Your task to perform on an android device: Clear all items from cart on target. Add macbook pro to the cart on target, then select checkout. Image 0: 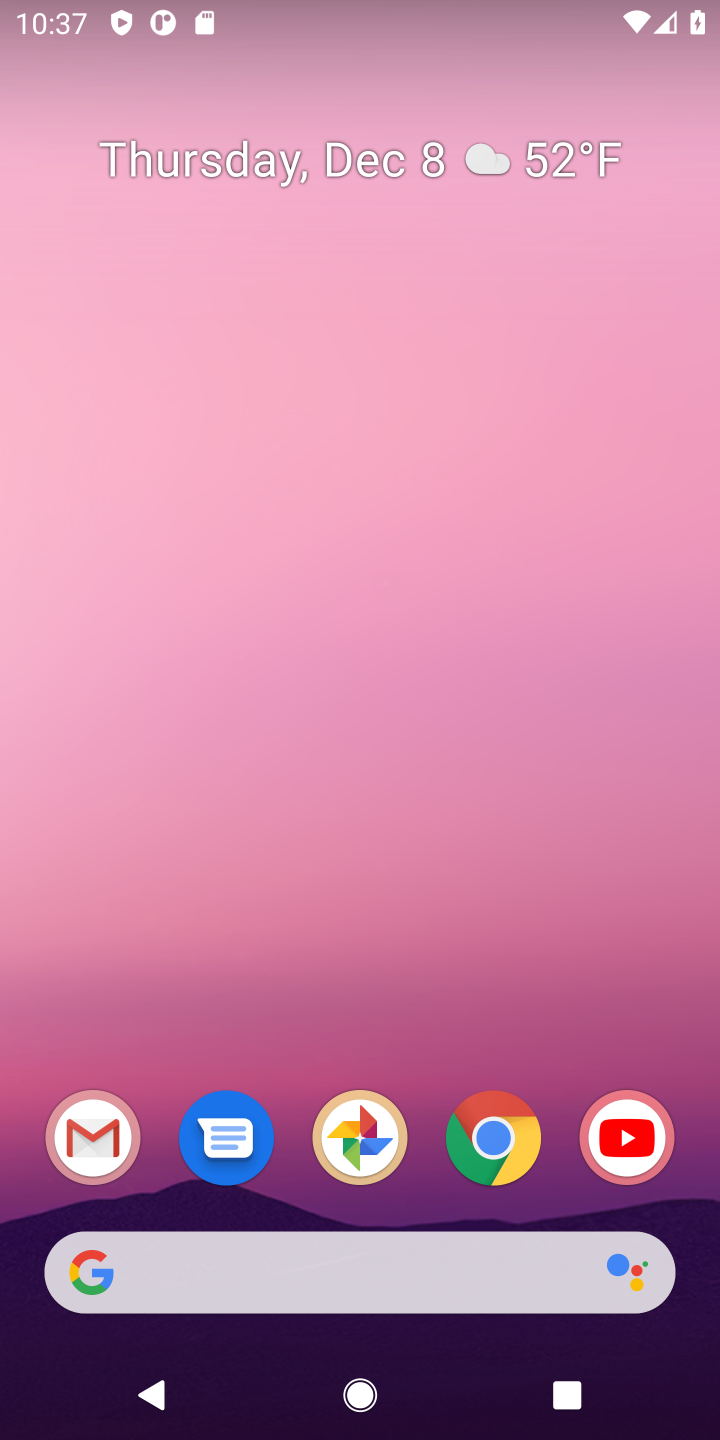
Step 0: click (497, 1144)
Your task to perform on an android device: Clear all items from cart on target. Add macbook pro to the cart on target, then select checkout. Image 1: 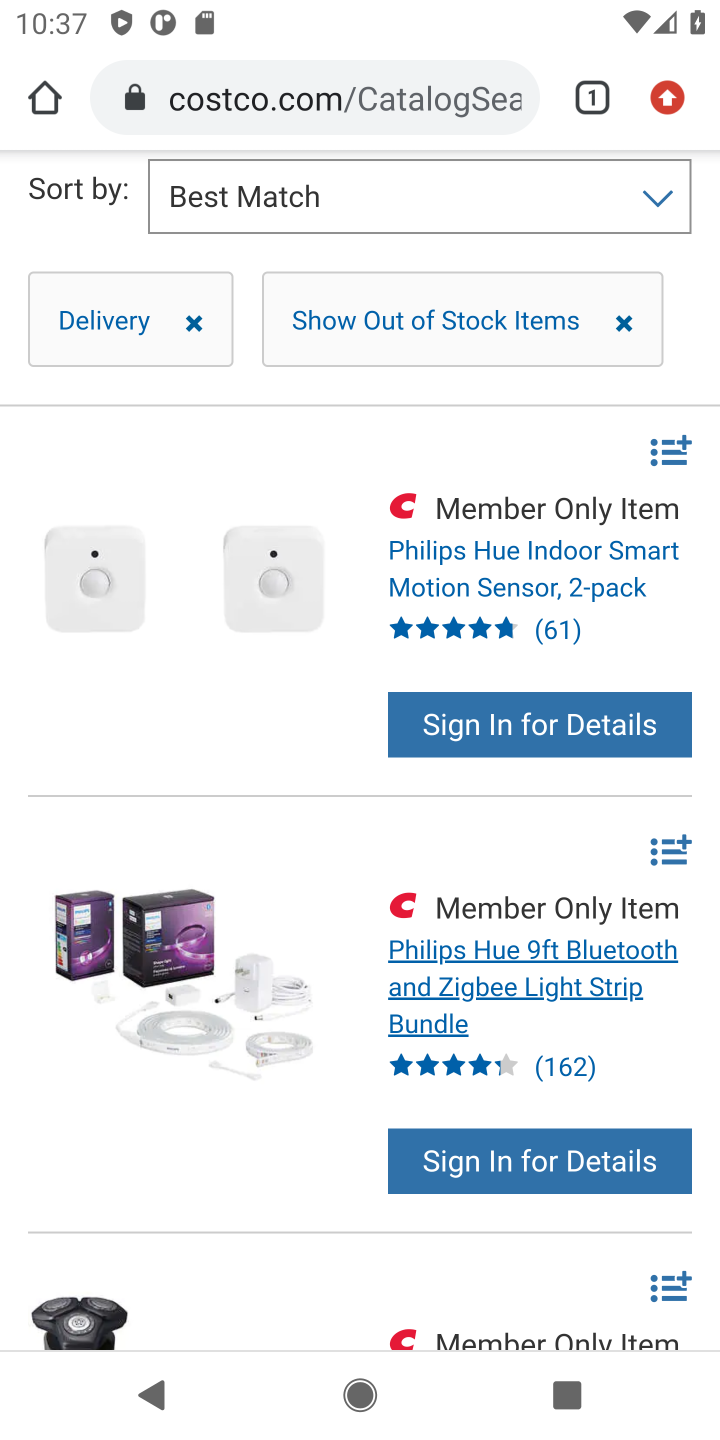
Step 1: click (403, 109)
Your task to perform on an android device: Clear all items from cart on target. Add macbook pro to the cart on target, then select checkout. Image 2: 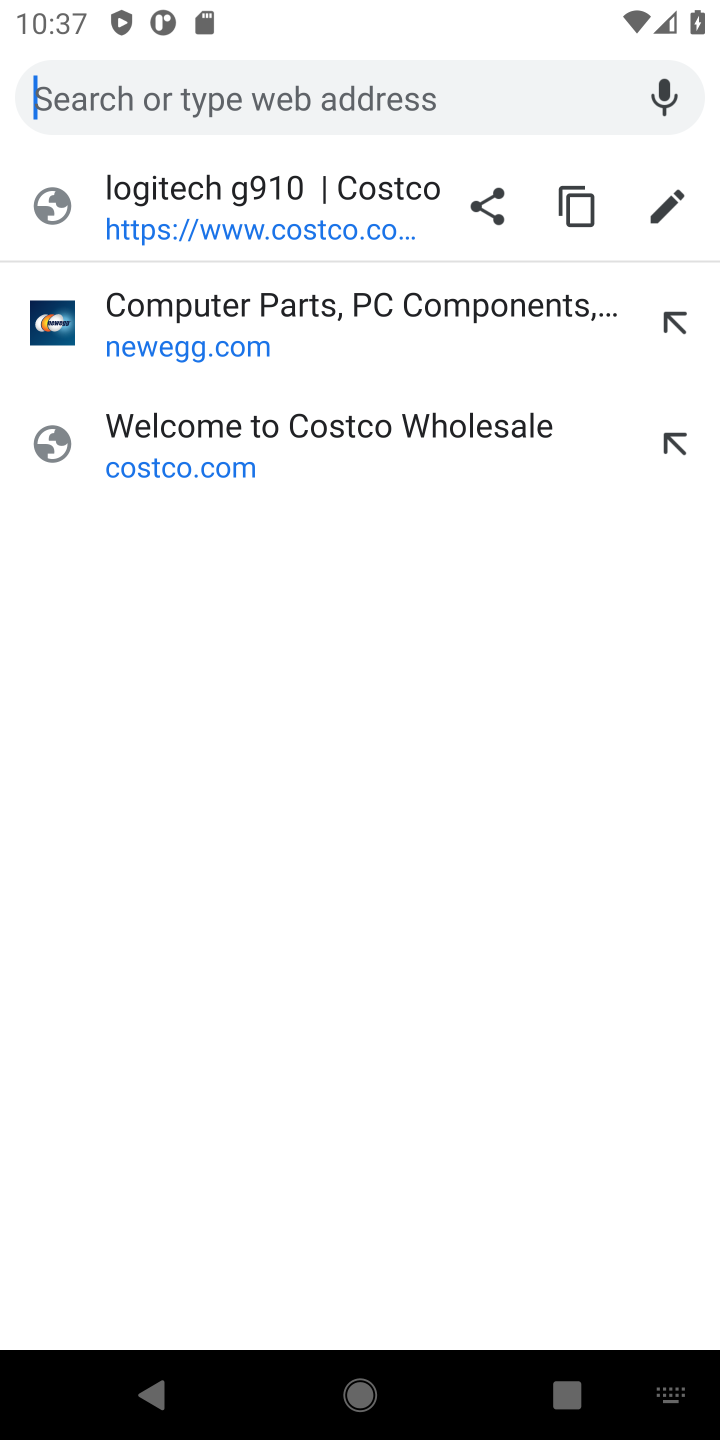
Step 2: type "target"
Your task to perform on an android device: Clear all items from cart on target. Add macbook pro to the cart on target, then select checkout. Image 3: 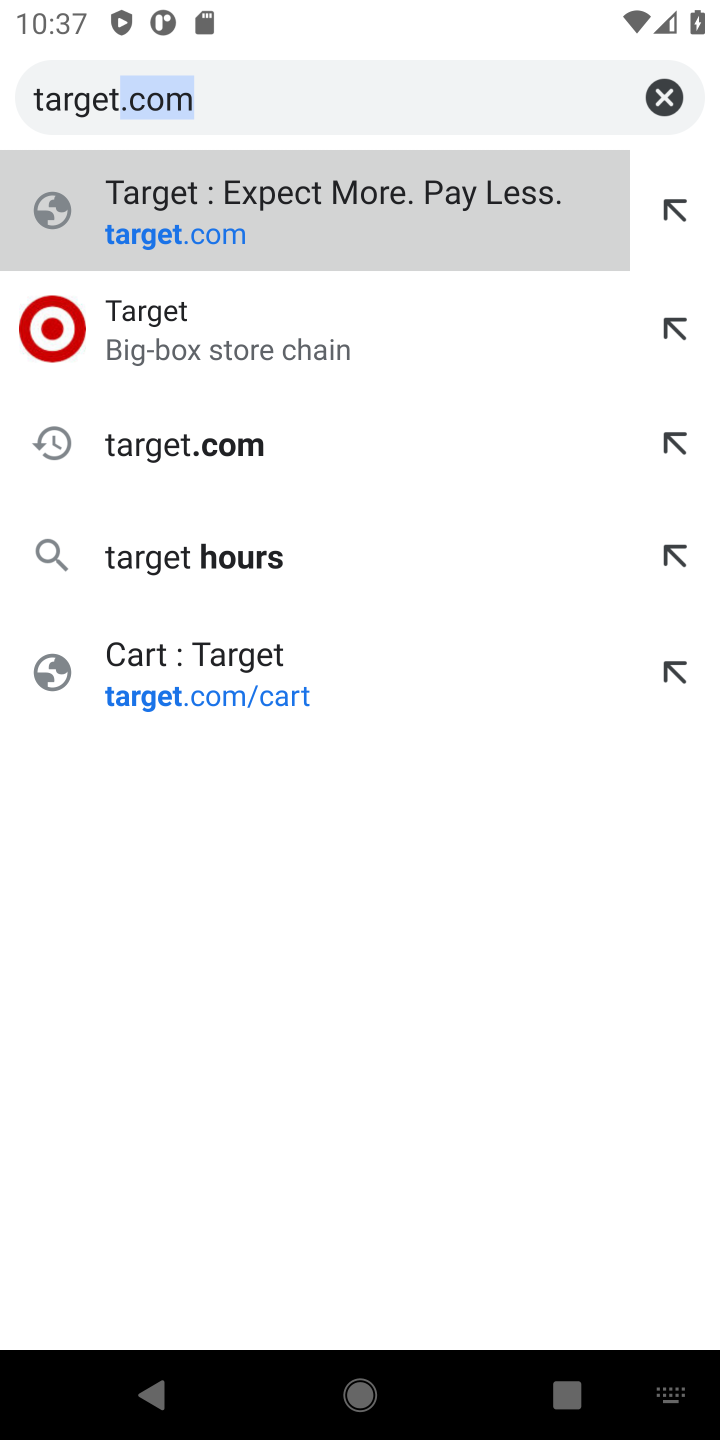
Step 3: click (392, 82)
Your task to perform on an android device: Clear all items from cart on target. Add macbook pro to the cart on target, then select checkout. Image 4: 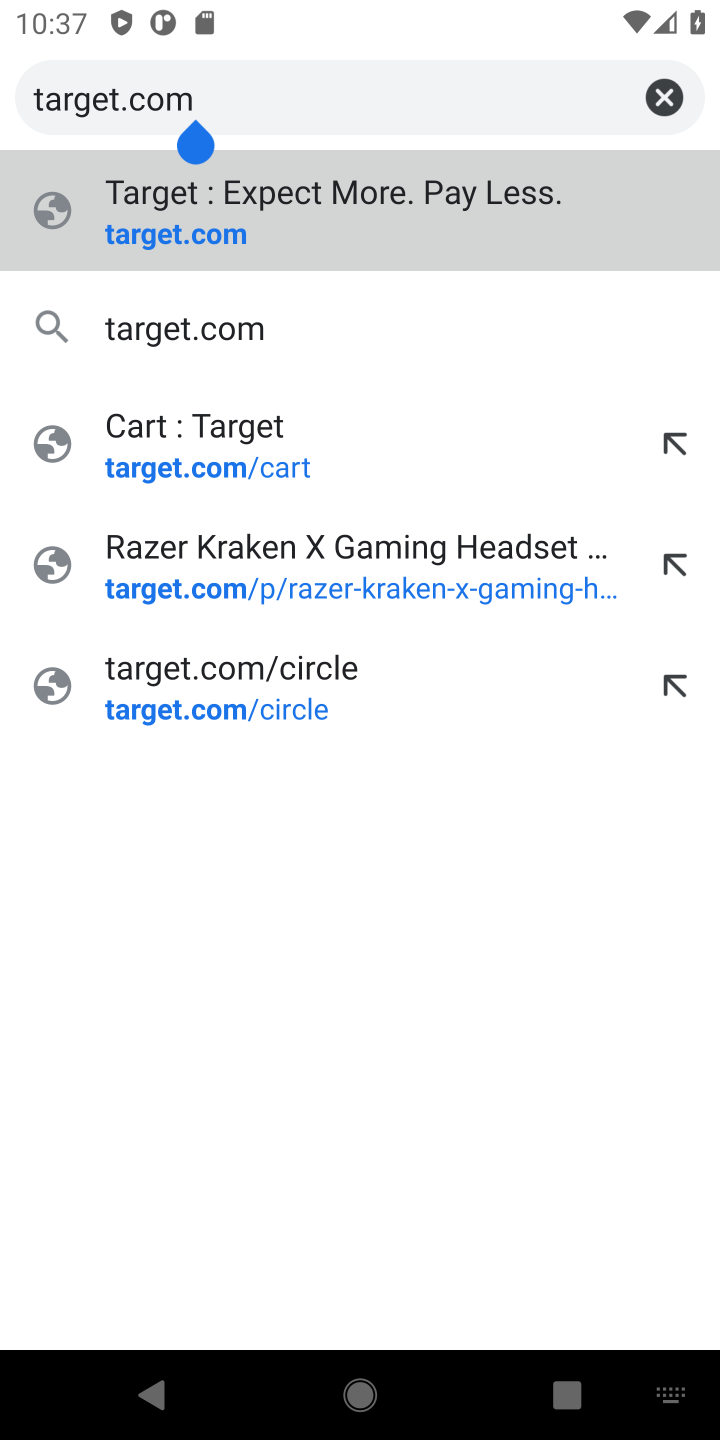
Step 4: click (234, 322)
Your task to perform on an android device: Clear all items from cart on target. Add macbook pro to the cart on target, then select checkout. Image 5: 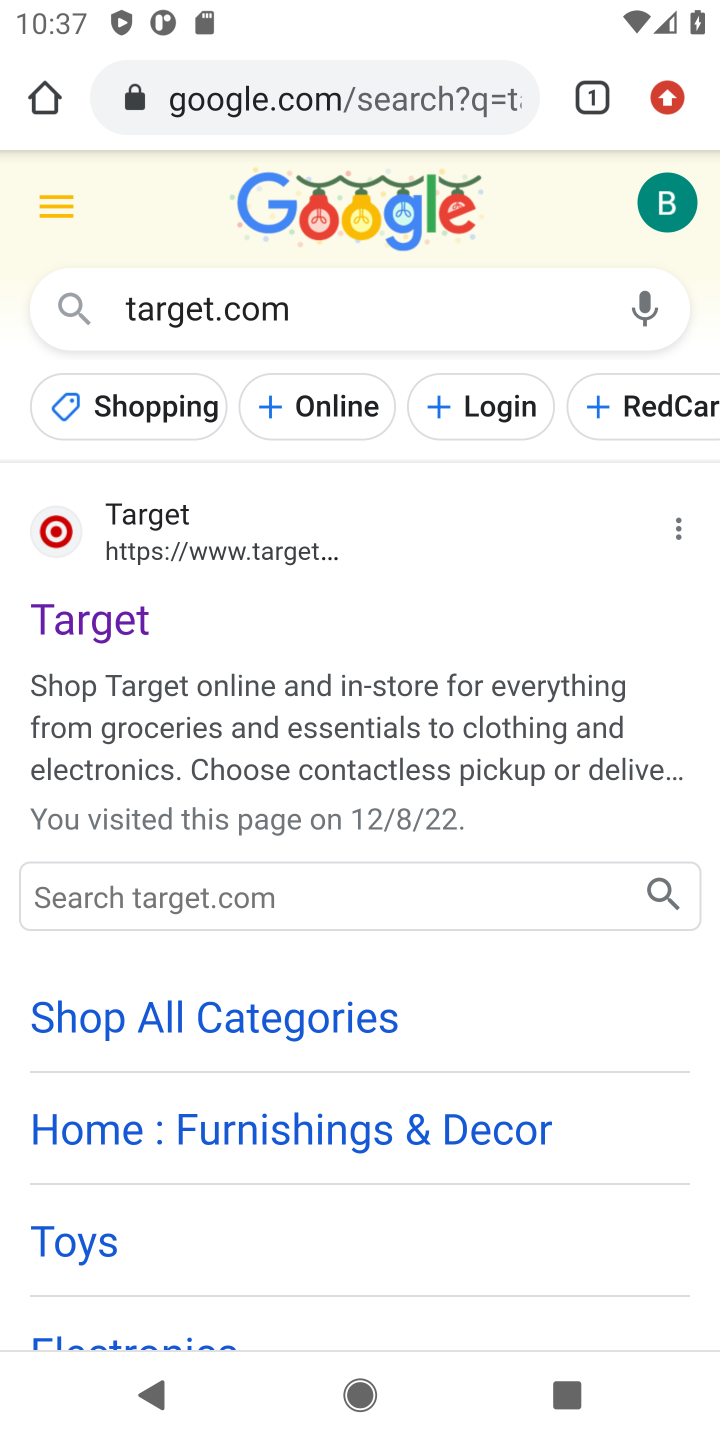
Step 5: click (224, 550)
Your task to perform on an android device: Clear all items from cart on target. Add macbook pro to the cart on target, then select checkout. Image 6: 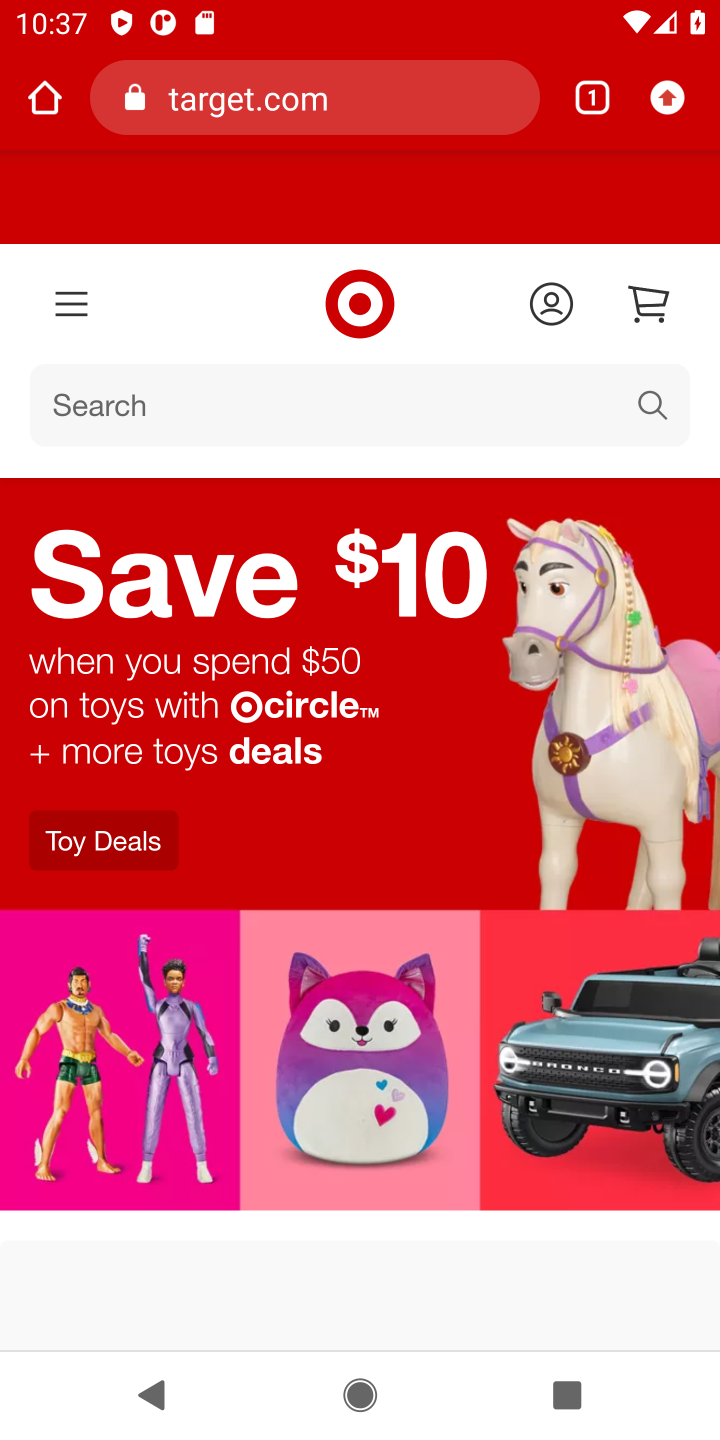
Step 6: click (656, 307)
Your task to perform on an android device: Clear all items from cart on target. Add macbook pro to the cart on target, then select checkout. Image 7: 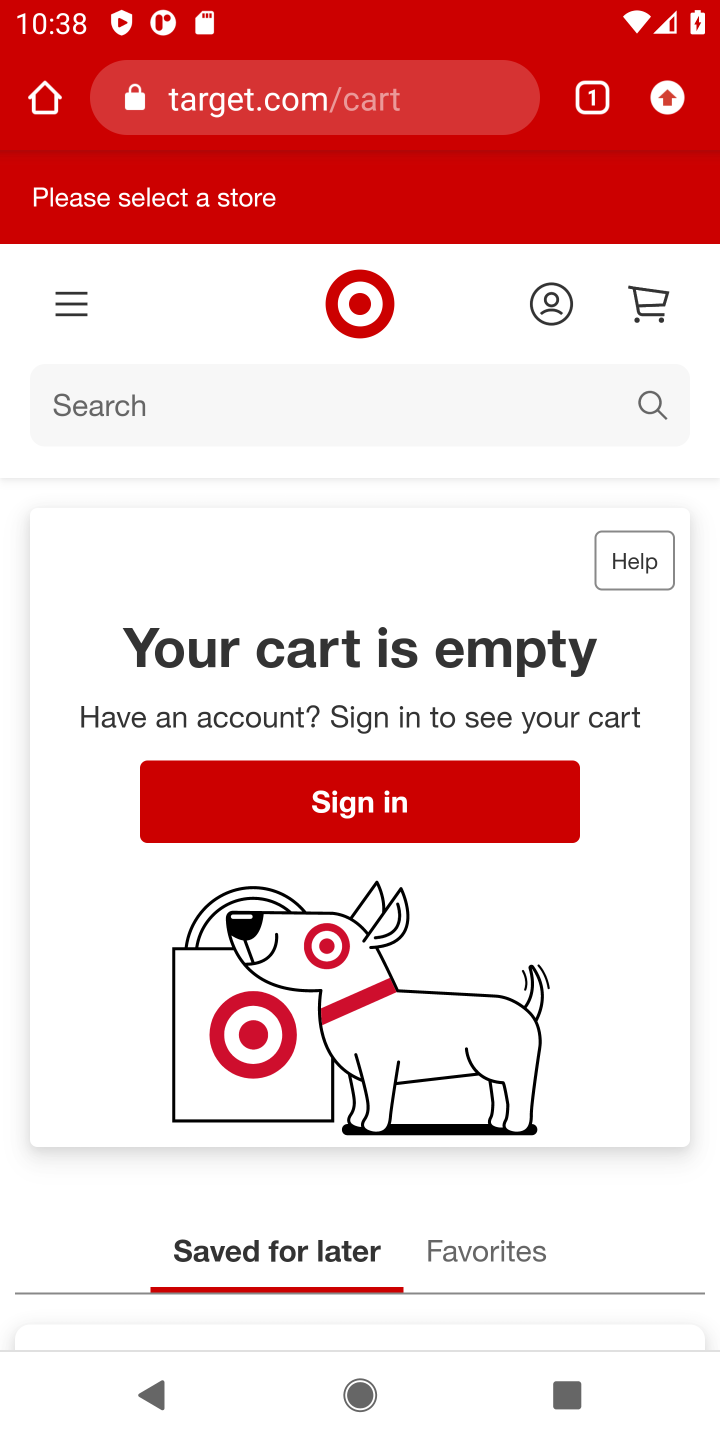
Step 7: click (418, 396)
Your task to perform on an android device: Clear all items from cart on target. Add macbook pro to the cart on target, then select checkout. Image 8: 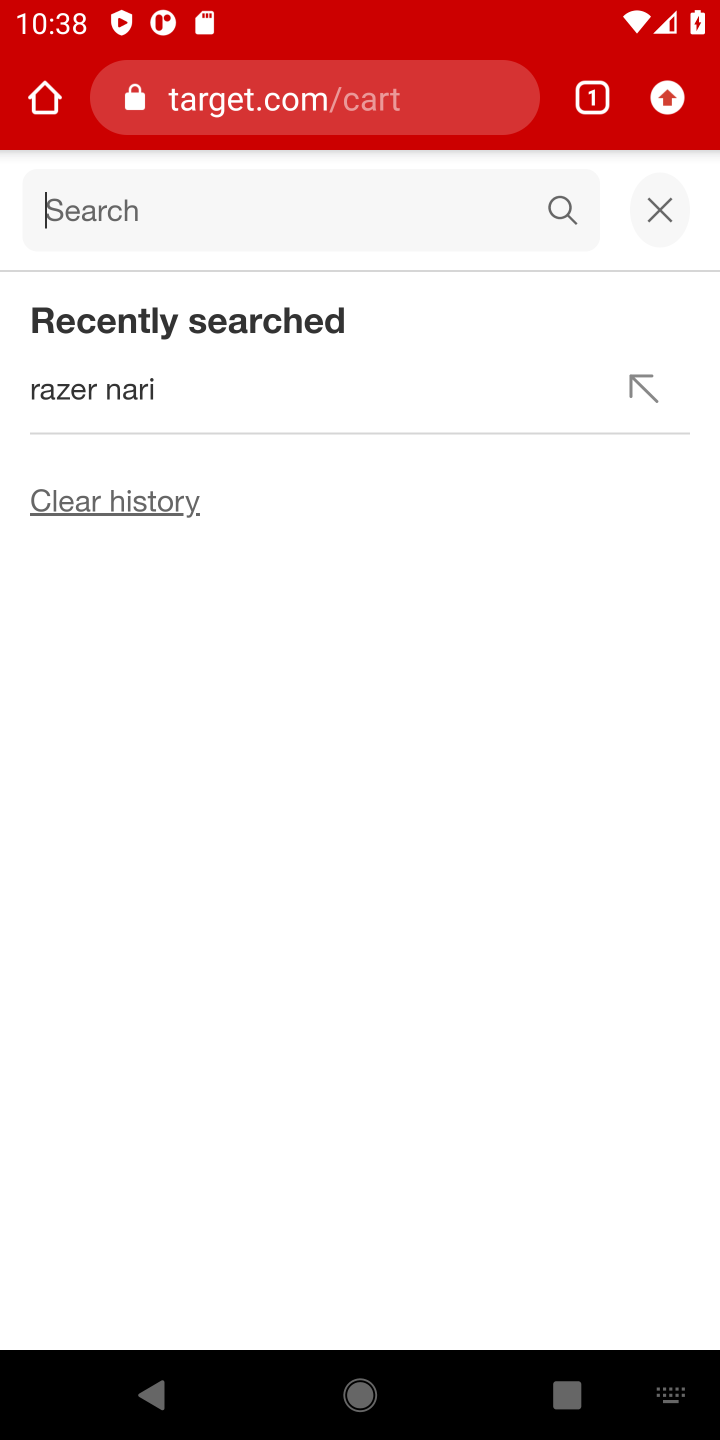
Step 8: type "macbook pro"
Your task to perform on an android device: Clear all items from cart on target. Add macbook pro to the cart on target, then select checkout. Image 9: 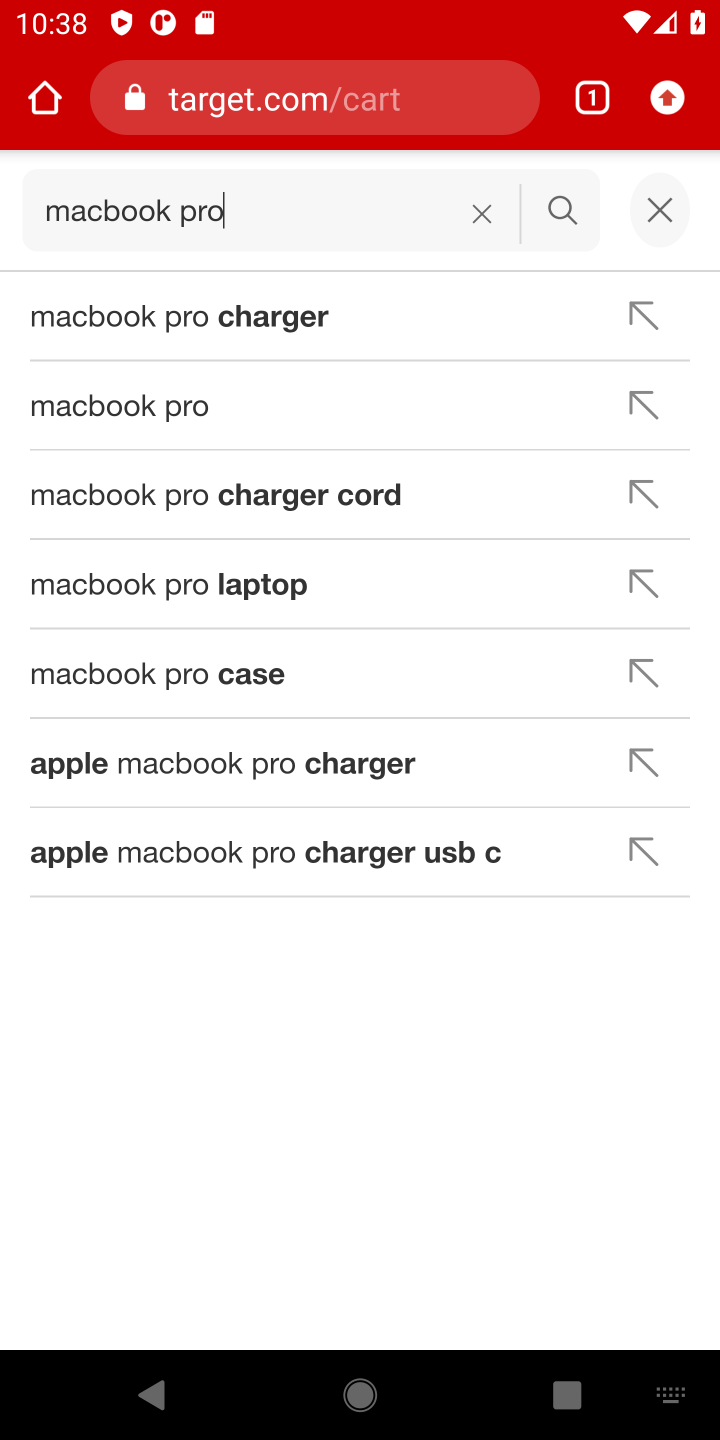
Step 9: click (135, 401)
Your task to perform on an android device: Clear all items from cart on target. Add macbook pro to the cart on target, then select checkout. Image 10: 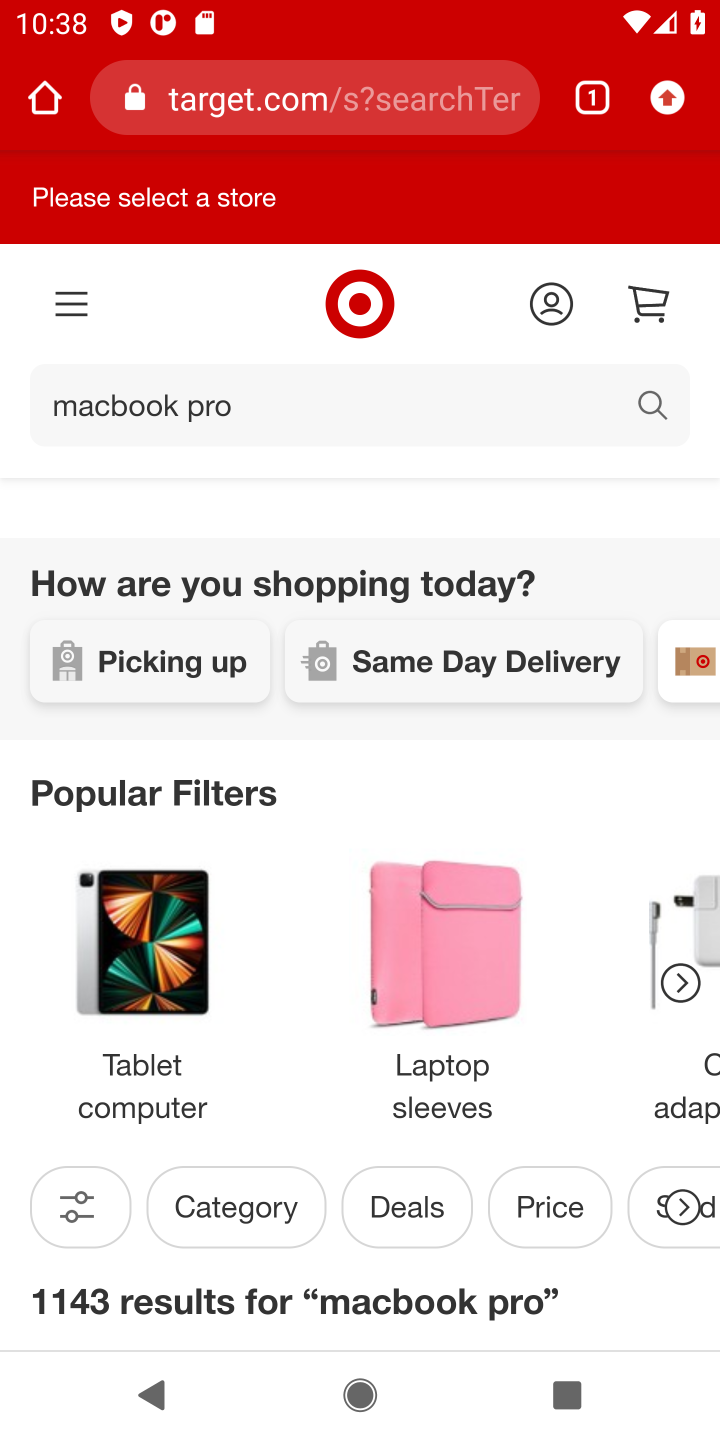
Step 10: task complete